Your task to perform on an android device: What are the new products by Samsung? Image 0: 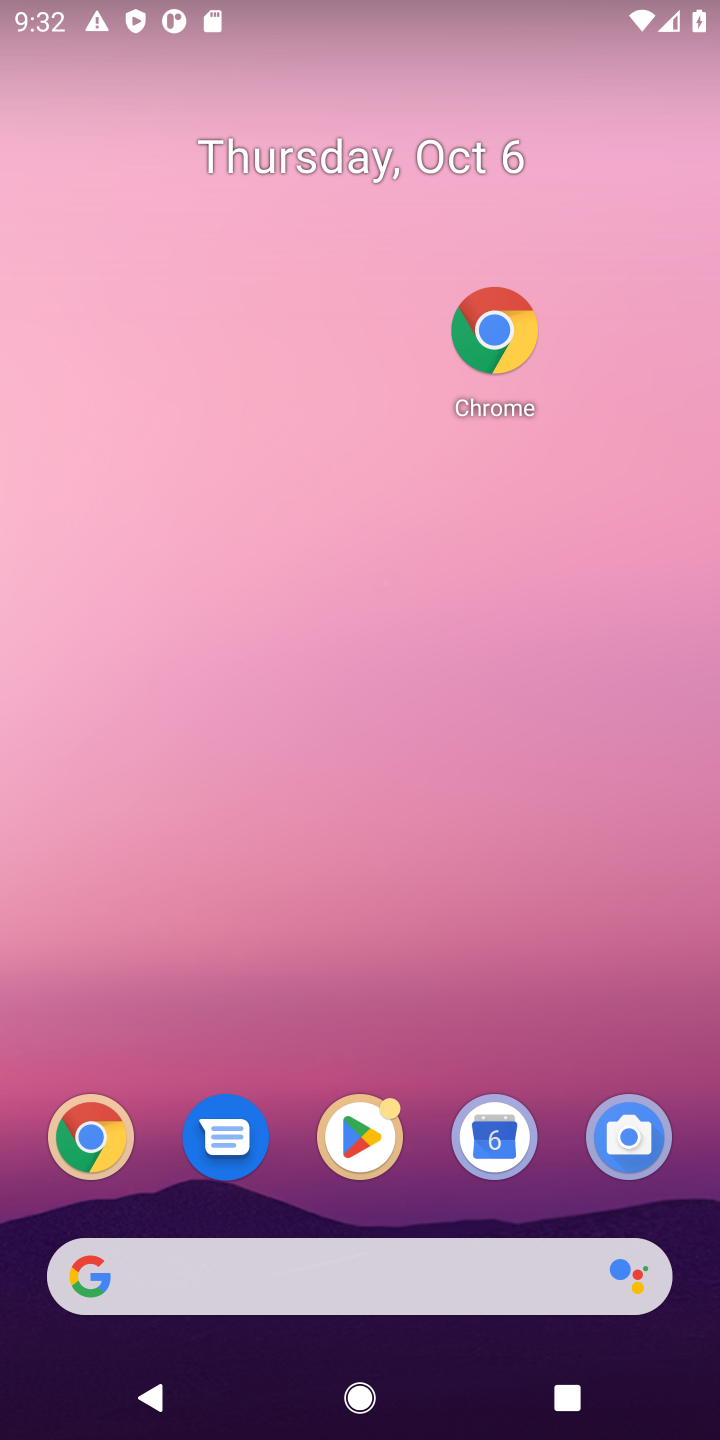
Step 0: click (71, 1139)
Your task to perform on an android device: What are the new products by Samsung? Image 1: 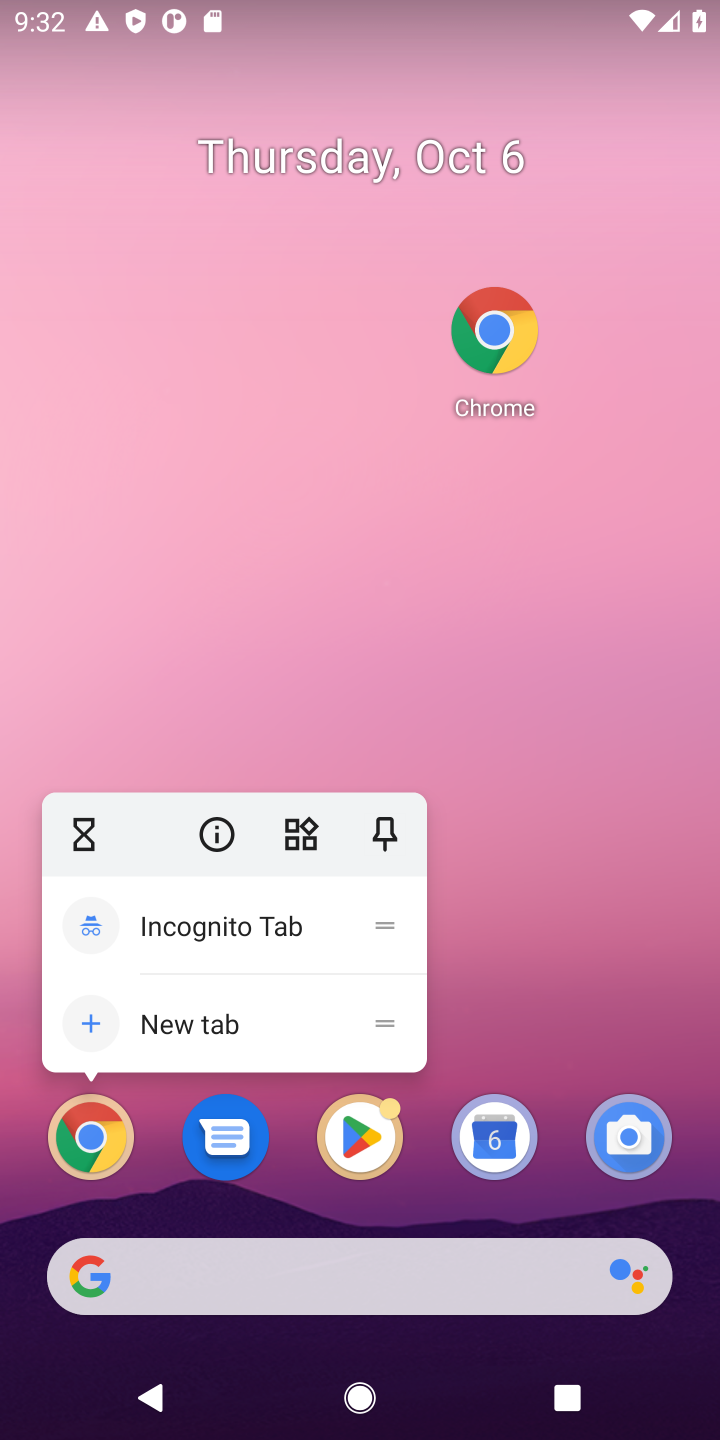
Step 1: click (81, 1150)
Your task to perform on an android device: What are the new products by Samsung? Image 2: 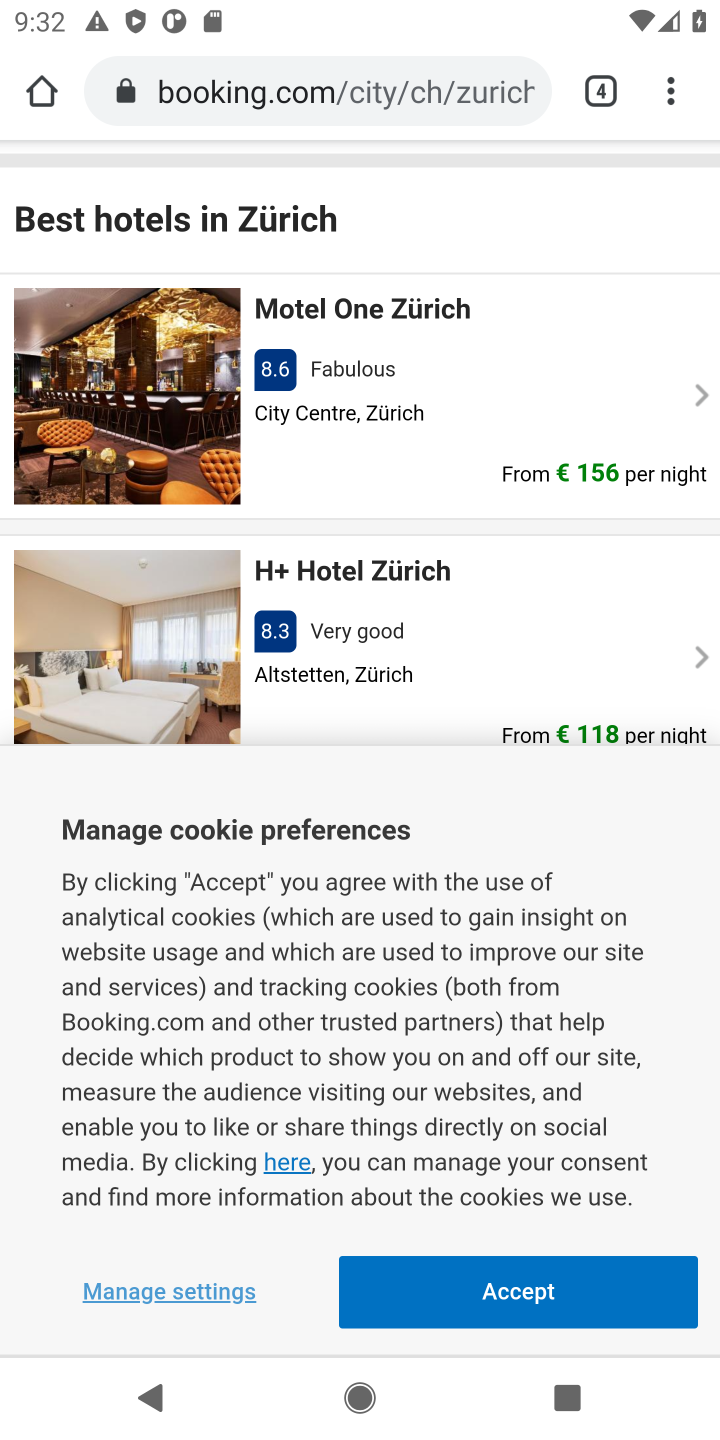
Step 2: click (430, 95)
Your task to perform on an android device: What are the new products by Samsung? Image 3: 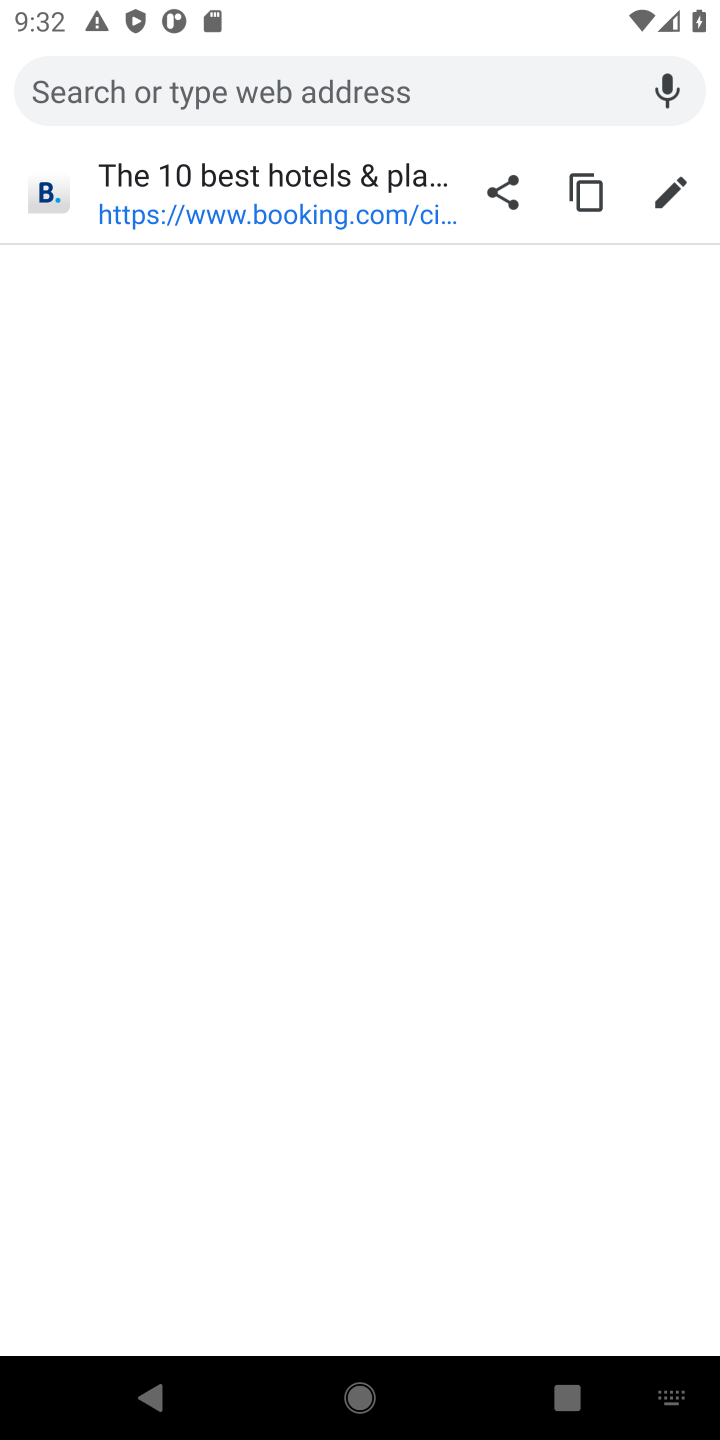
Step 3: type "new products by Samsung"
Your task to perform on an android device: What are the new products by Samsung? Image 4: 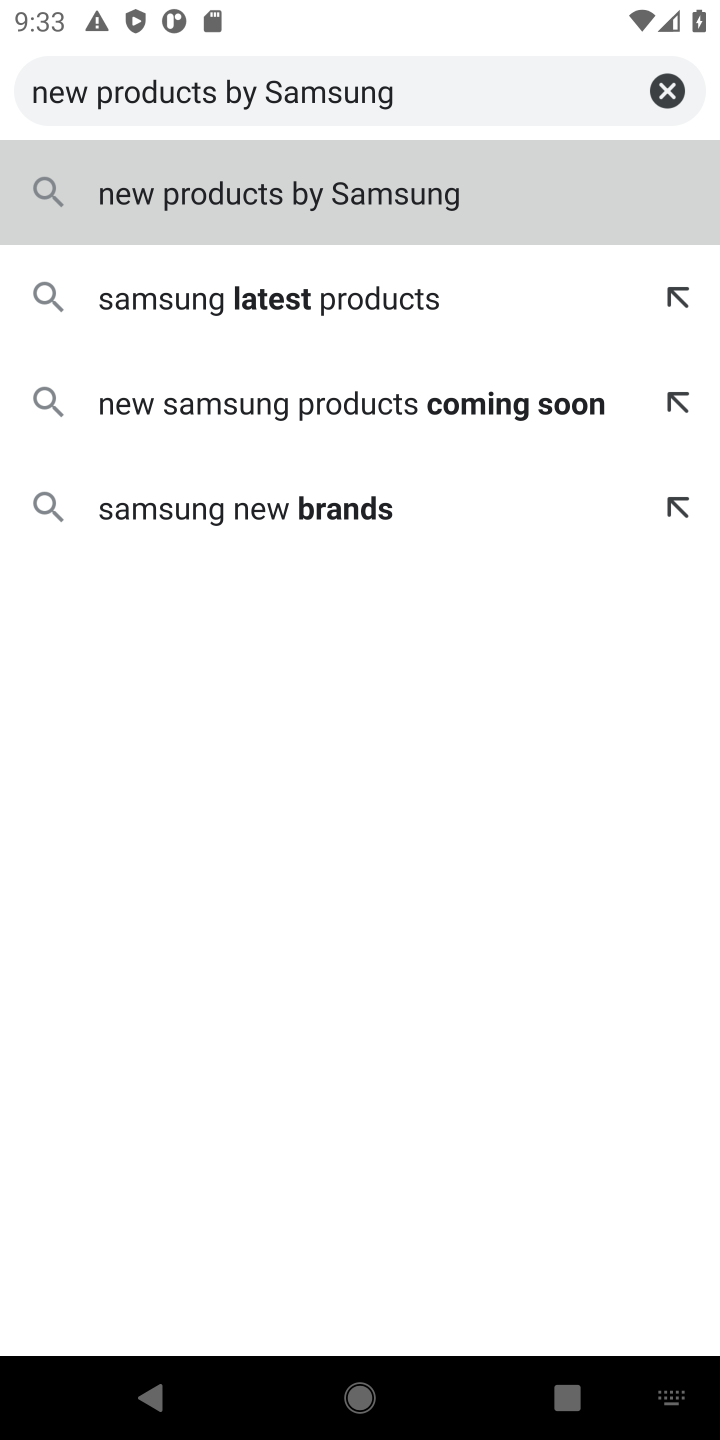
Step 4: click (376, 196)
Your task to perform on an android device: What are the new products by Samsung? Image 5: 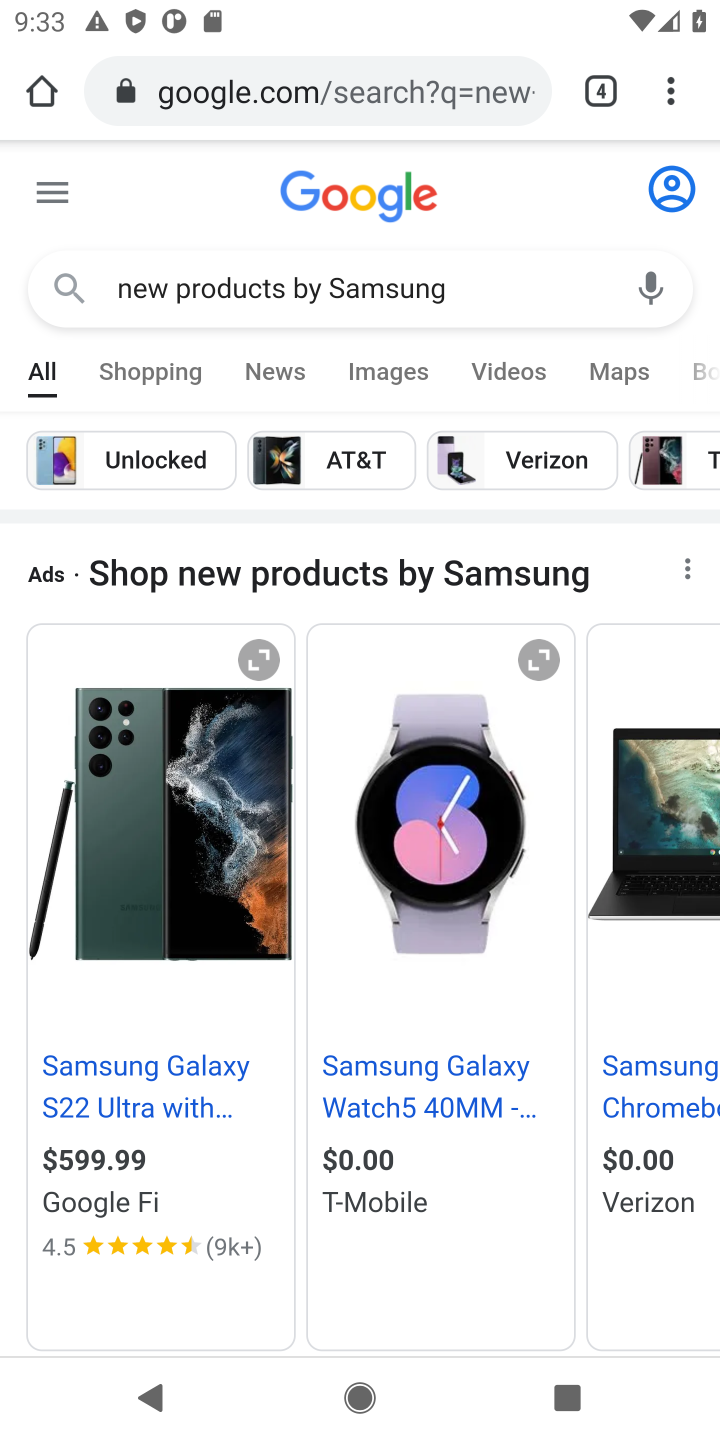
Step 5: task complete